Your task to perform on an android device: change the clock style Image 0: 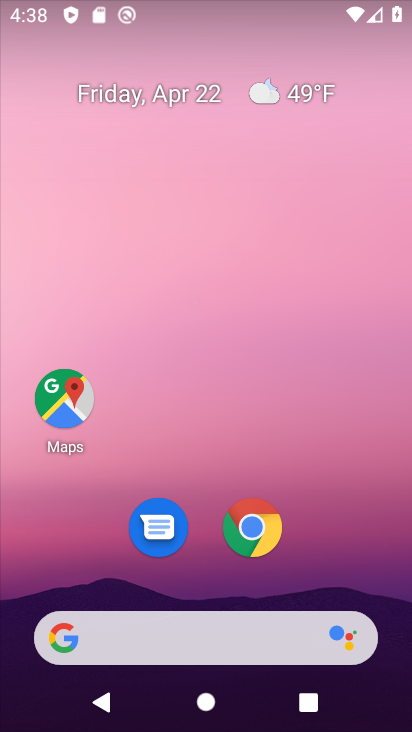
Step 0: drag from (265, 697) to (126, 115)
Your task to perform on an android device: change the clock style Image 1: 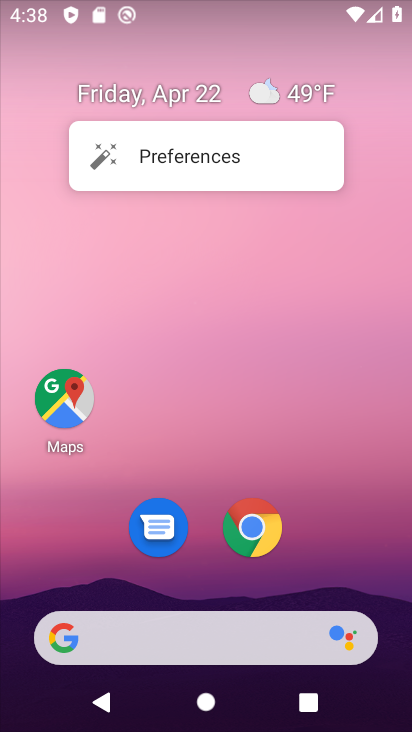
Step 1: drag from (344, 531) to (273, 80)
Your task to perform on an android device: change the clock style Image 2: 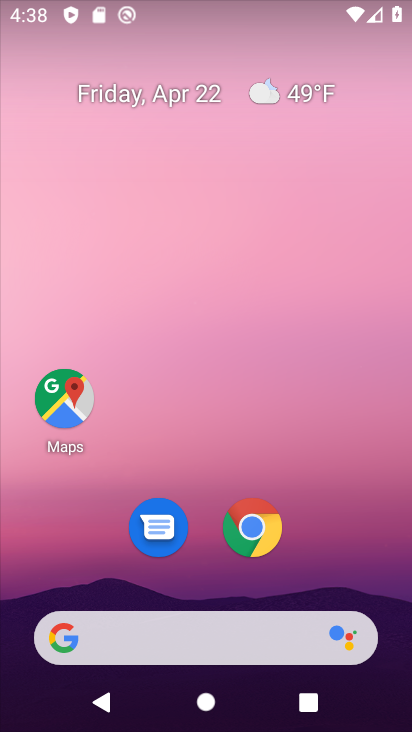
Step 2: drag from (272, 370) to (119, 81)
Your task to perform on an android device: change the clock style Image 3: 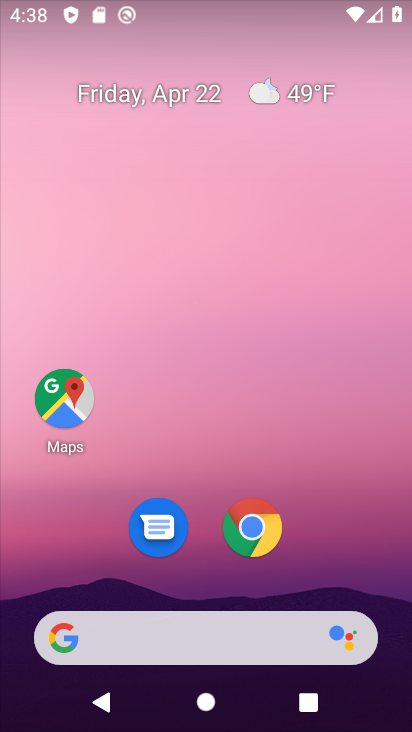
Step 3: drag from (253, 266) to (193, 82)
Your task to perform on an android device: change the clock style Image 4: 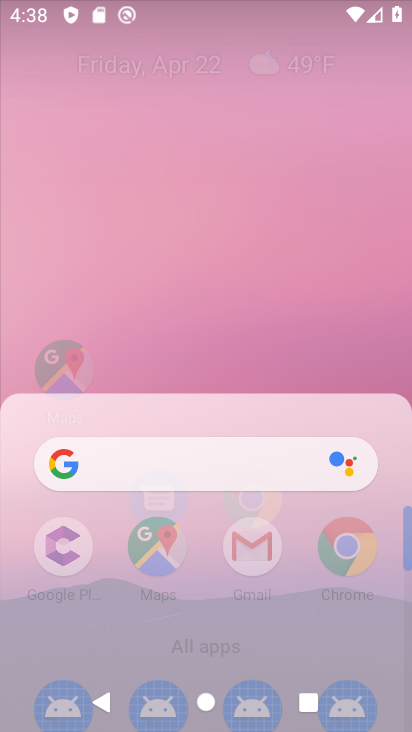
Step 4: drag from (305, 377) to (157, 0)
Your task to perform on an android device: change the clock style Image 5: 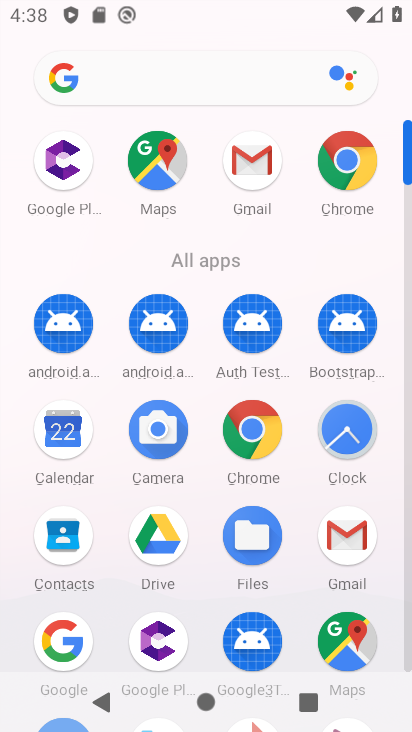
Step 5: click (349, 424)
Your task to perform on an android device: change the clock style Image 6: 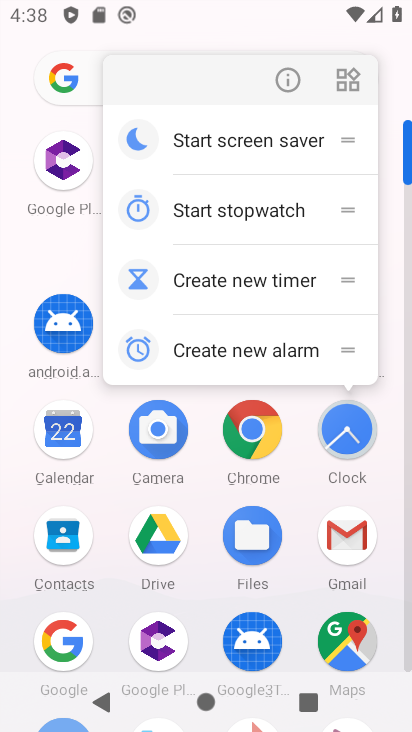
Step 6: click (339, 424)
Your task to perform on an android device: change the clock style Image 7: 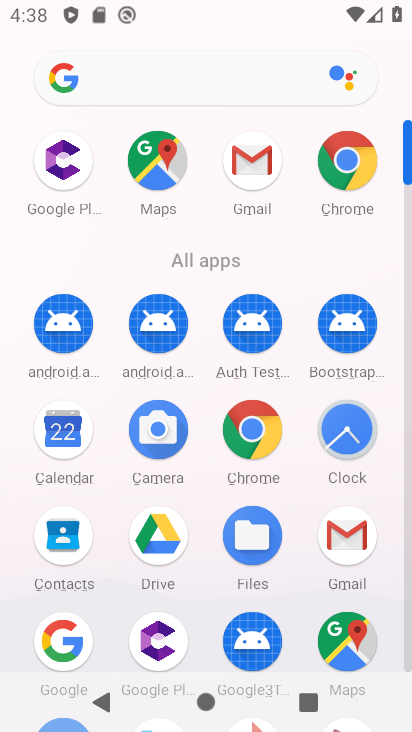
Step 7: click (341, 424)
Your task to perform on an android device: change the clock style Image 8: 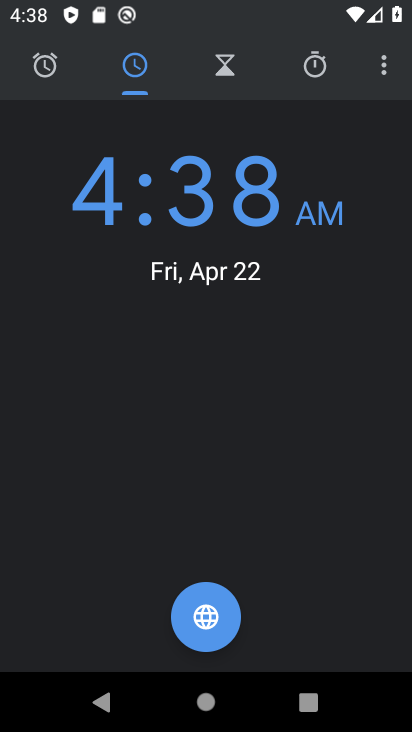
Step 8: click (380, 64)
Your task to perform on an android device: change the clock style Image 9: 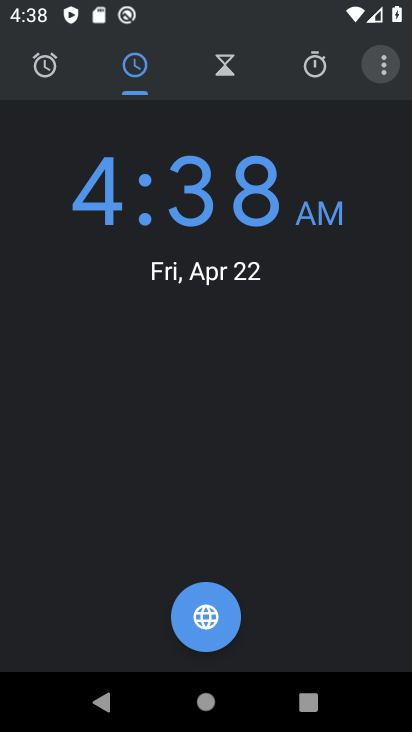
Step 9: click (384, 81)
Your task to perform on an android device: change the clock style Image 10: 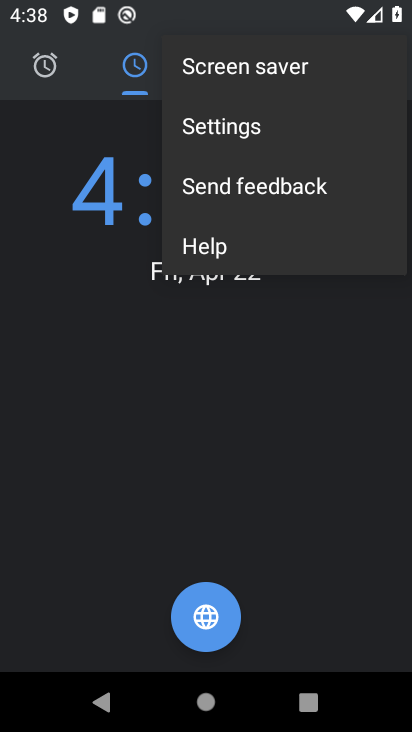
Step 10: click (244, 122)
Your task to perform on an android device: change the clock style Image 11: 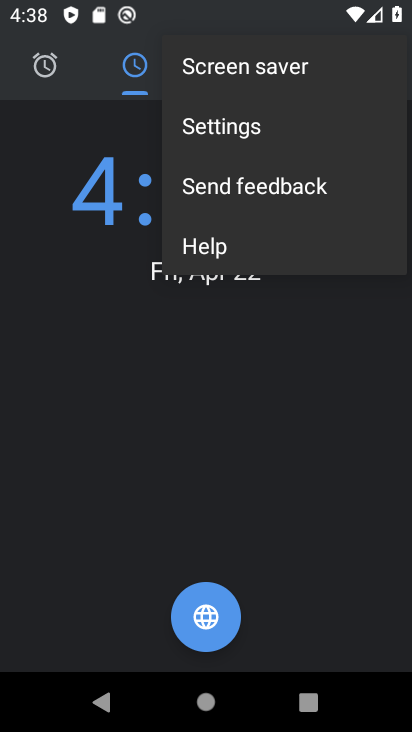
Step 11: click (237, 135)
Your task to perform on an android device: change the clock style Image 12: 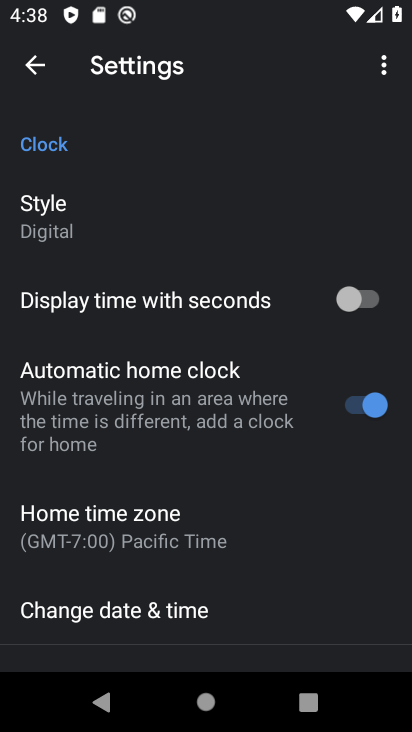
Step 12: click (139, 219)
Your task to perform on an android device: change the clock style Image 13: 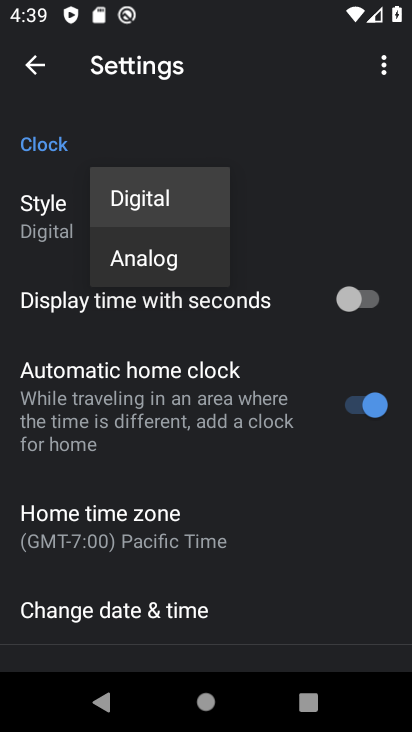
Step 13: click (147, 260)
Your task to perform on an android device: change the clock style Image 14: 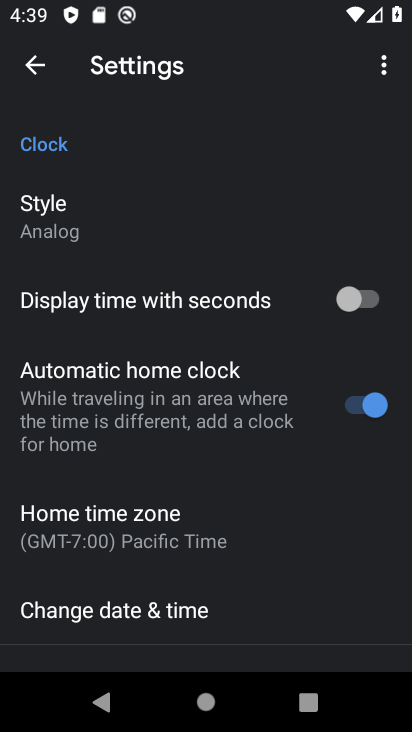
Step 14: task complete